Your task to perform on an android device: Open Google Image 0: 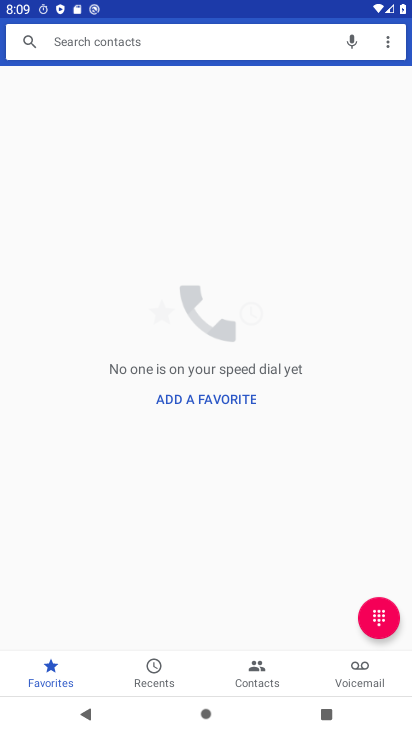
Step 0: press home button
Your task to perform on an android device: Open Google Image 1: 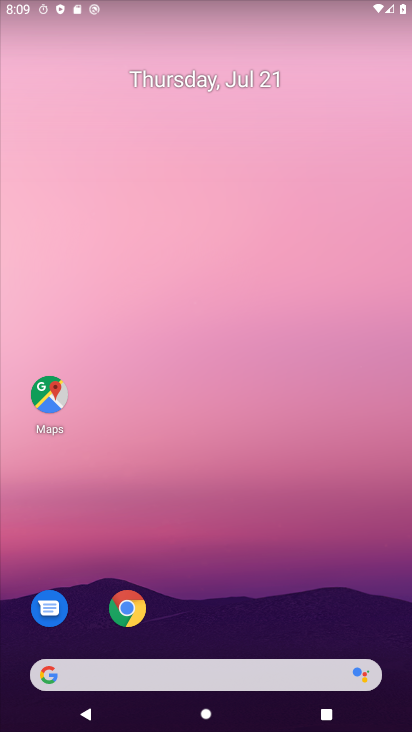
Step 1: drag from (260, 643) to (319, 0)
Your task to perform on an android device: Open Google Image 2: 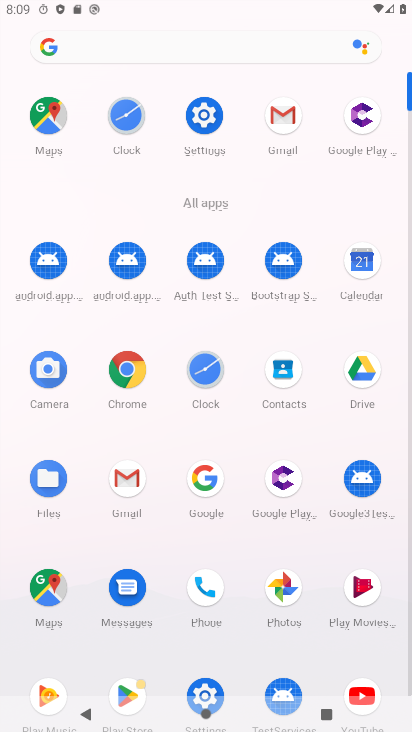
Step 2: click (197, 462)
Your task to perform on an android device: Open Google Image 3: 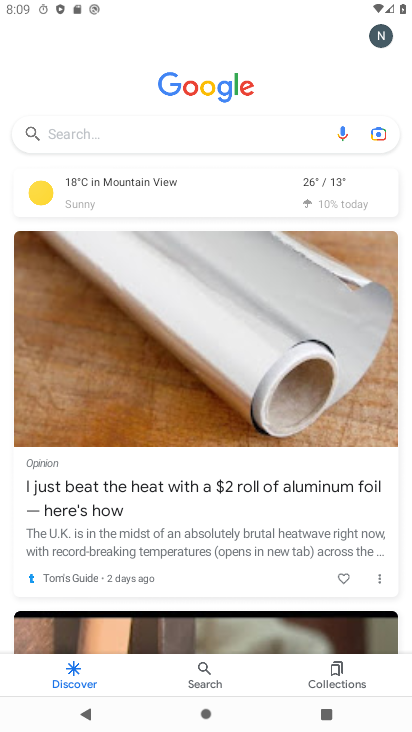
Step 3: task complete